Your task to perform on an android device: turn vacation reply on in the gmail app Image 0: 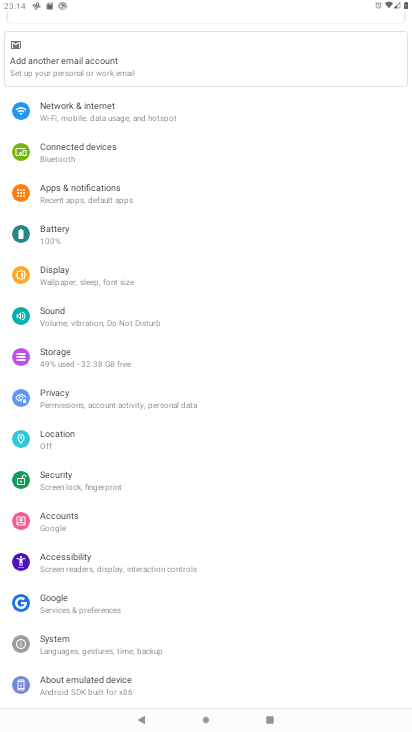
Step 0: press home button
Your task to perform on an android device: turn vacation reply on in the gmail app Image 1: 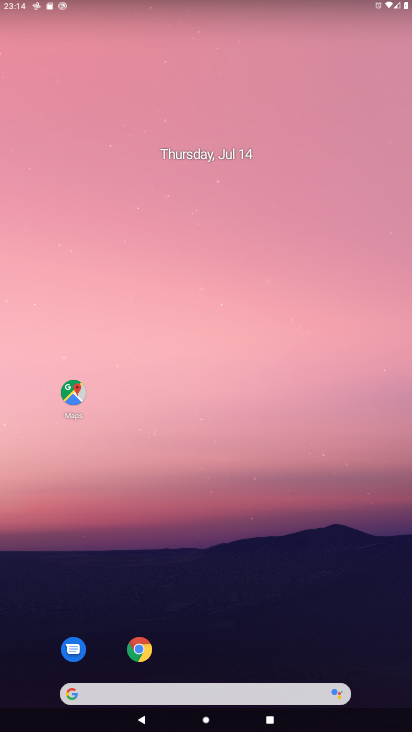
Step 1: drag from (210, 563) to (19, 49)
Your task to perform on an android device: turn vacation reply on in the gmail app Image 2: 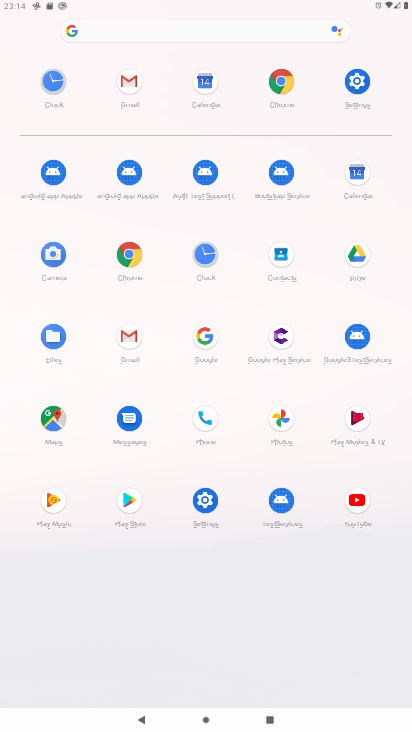
Step 2: click (121, 72)
Your task to perform on an android device: turn vacation reply on in the gmail app Image 3: 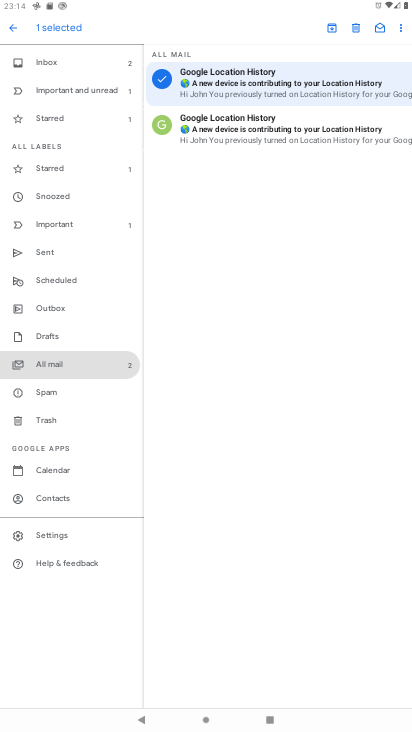
Step 3: click (11, 26)
Your task to perform on an android device: turn vacation reply on in the gmail app Image 4: 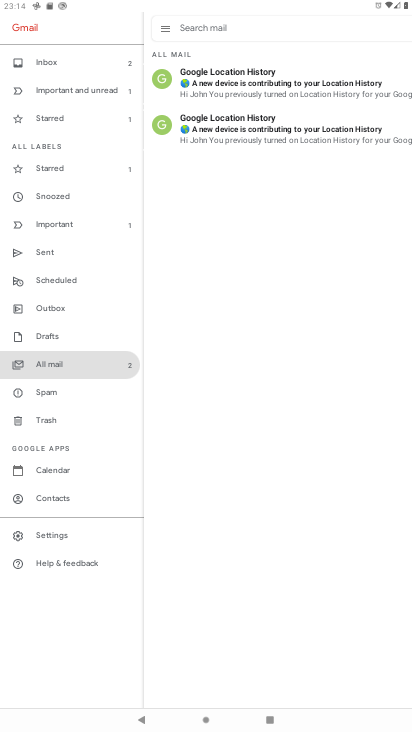
Step 4: click (50, 538)
Your task to perform on an android device: turn vacation reply on in the gmail app Image 5: 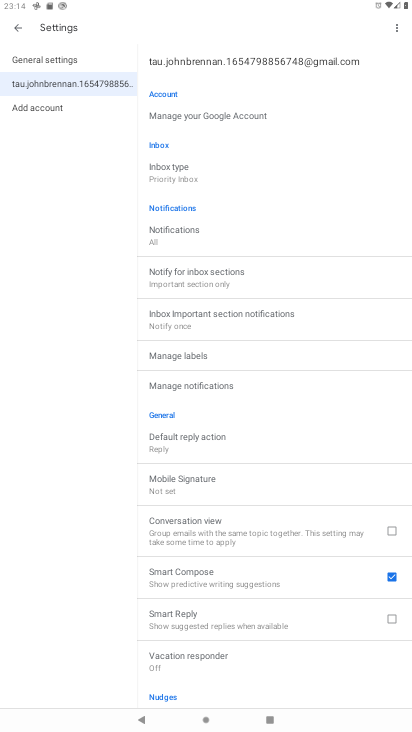
Step 5: click (187, 651)
Your task to perform on an android device: turn vacation reply on in the gmail app Image 6: 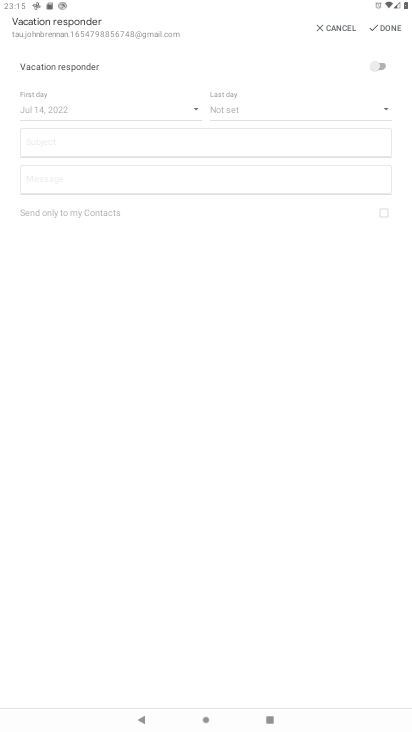
Step 6: click (382, 62)
Your task to perform on an android device: turn vacation reply on in the gmail app Image 7: 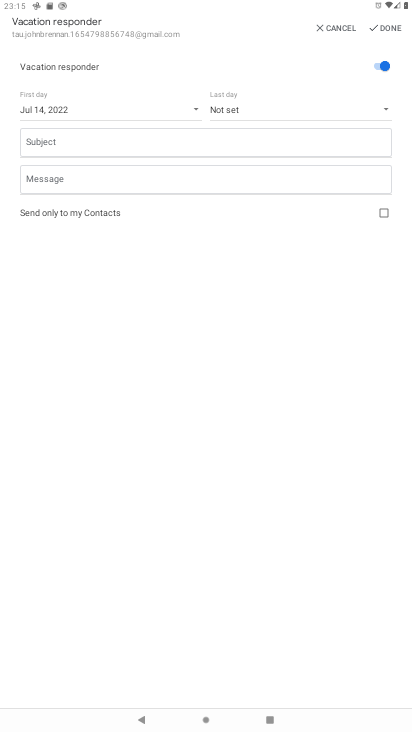
Step 7: click (385, 27)
Your task to perform on an android device: turn vacation reply on in the gmail app Image 8: 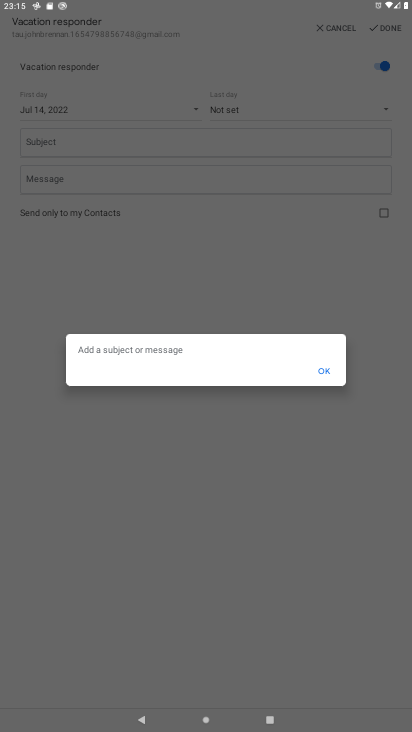
Step 8: click (327, 368)
Your task to perform on an android device: turn vacation reply on in the gmail app Image 9: 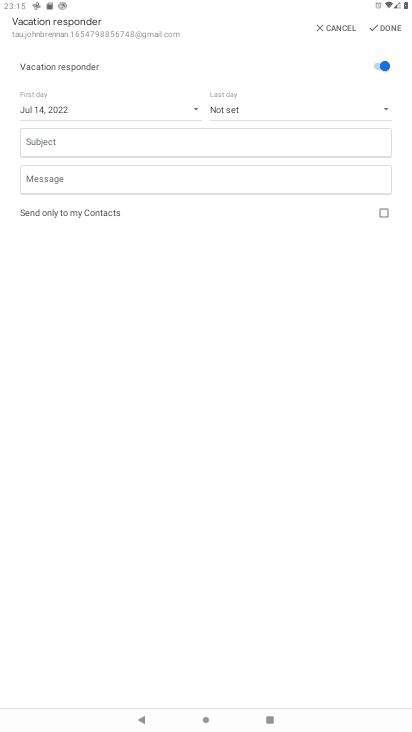
Step 9: click (164, 62)
Your task to perform on an android device: turn vacation reply on in the gmail app Image 10: 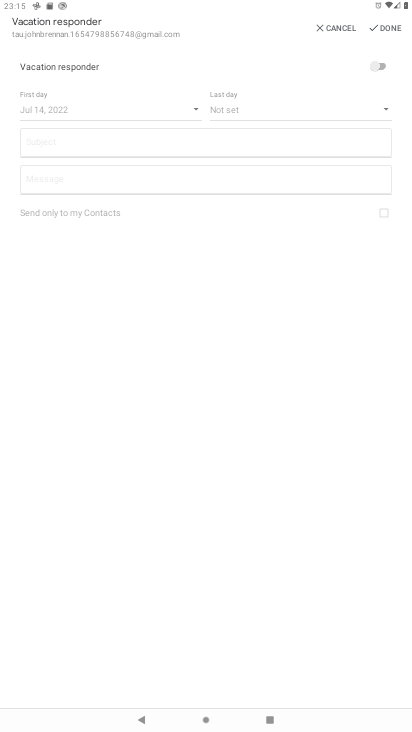
Step 10: click (374, 63)
Your task to perform on an android device: turn vacation reply on in the gmail app Image 11: 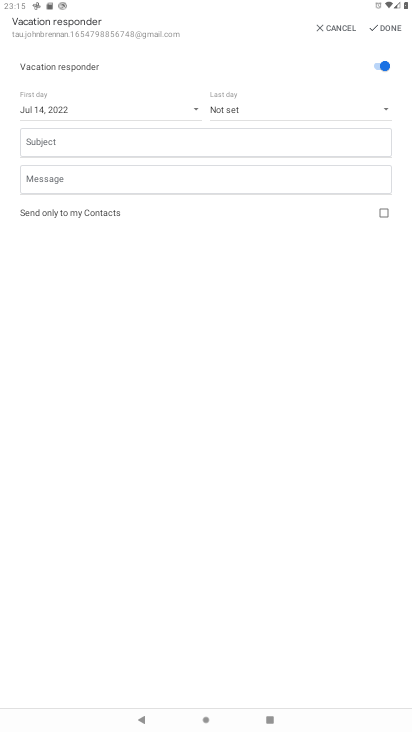
Step 11: click (114, 134)
Your task to perform on an android device: turn vacation reply on in the gmail app Image 12: 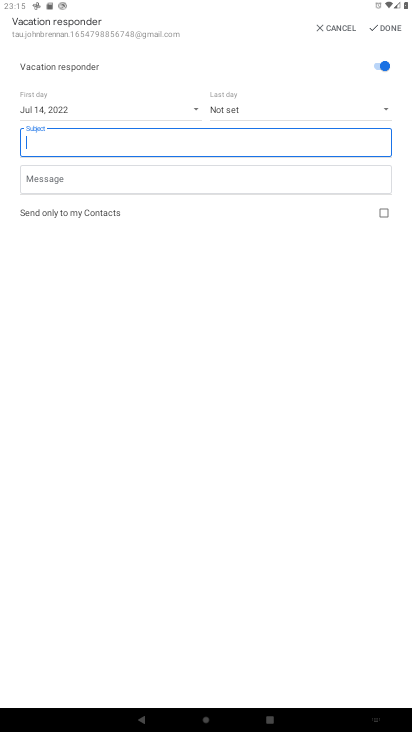
Step 12: type "vjhbkm,"
Your task to perform on an android device: turn vacation reply on in the gmail app Image 13: 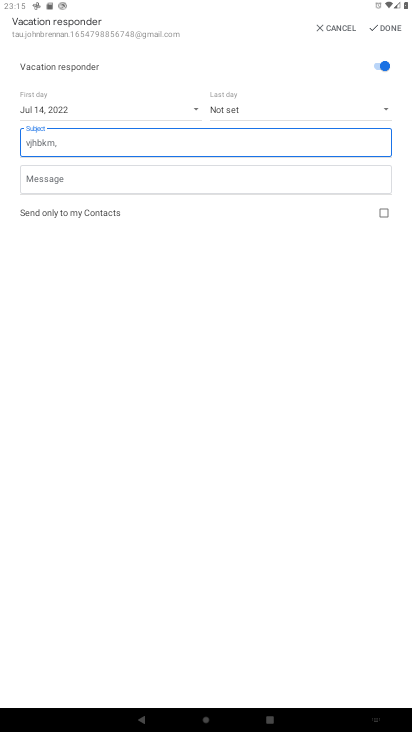
Step 13: click (387, 26)
Your task to perform on an android device: turn vacation reply on in the gmail app Image 14: 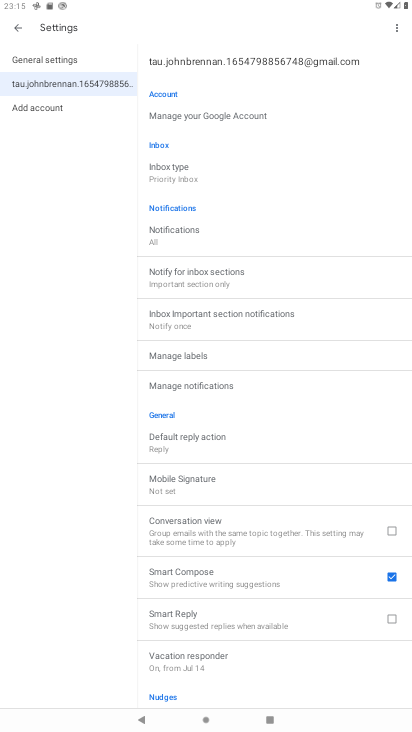
Step 14: task complete